Your task to perform on an android device: change keyboard looks Image 0: 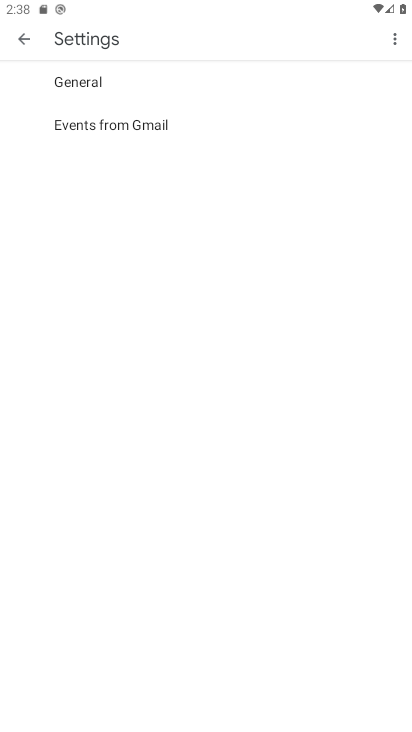
Step 0: press home button
Your task to perform on an android device: change keyboard looks Image 1: 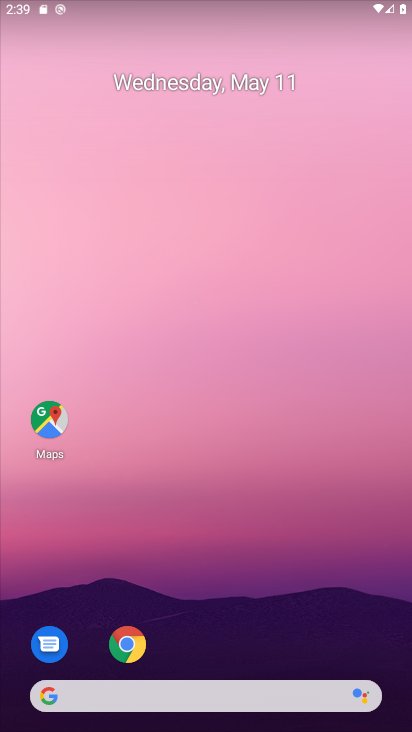
Step 1: drag from (214, 672) to (166, 3)
Your task to perform on an android device: change keyboard looks Image 2: 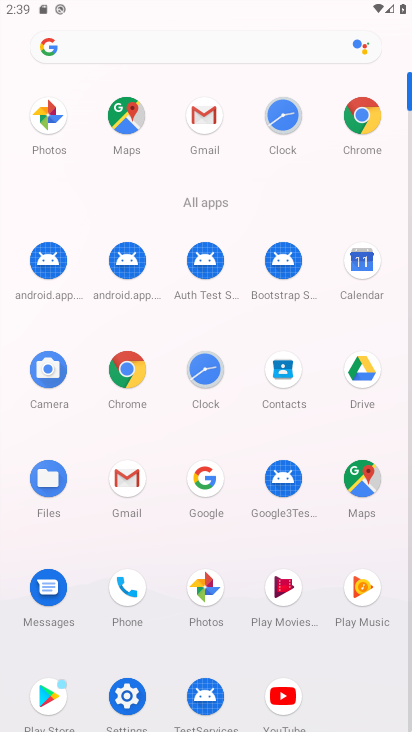
Step 2: click (132, 689)
Your task to perform on an android device: change keyboard looks Image 3: 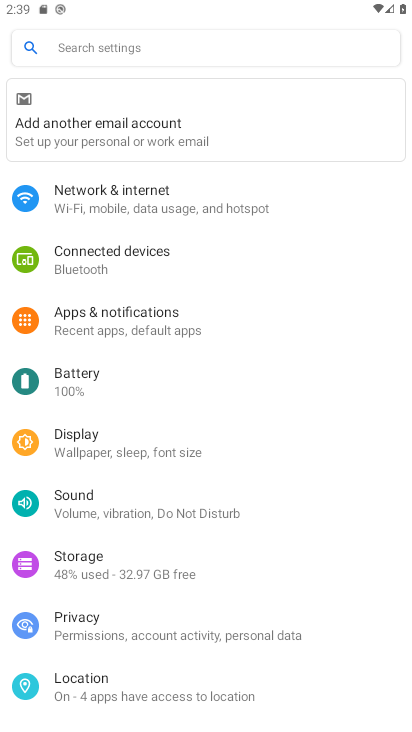
Step 3: click (93, 427)
Your task to perform on an android device: change keyboard looks Image 4: 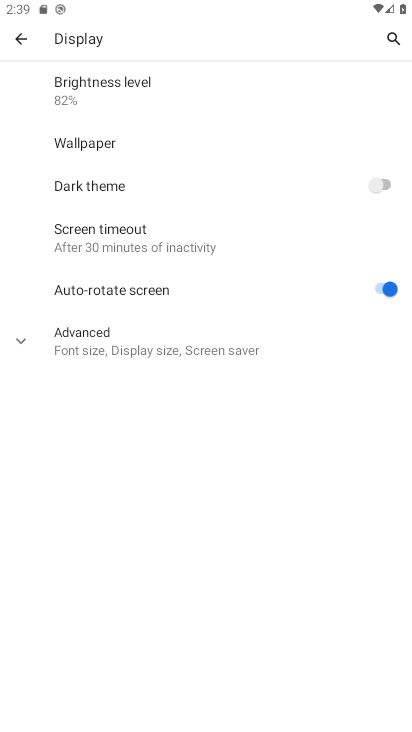
Step 4: click (31, 34)
Your task to perform on an android device: change keyboard looks Image 5: 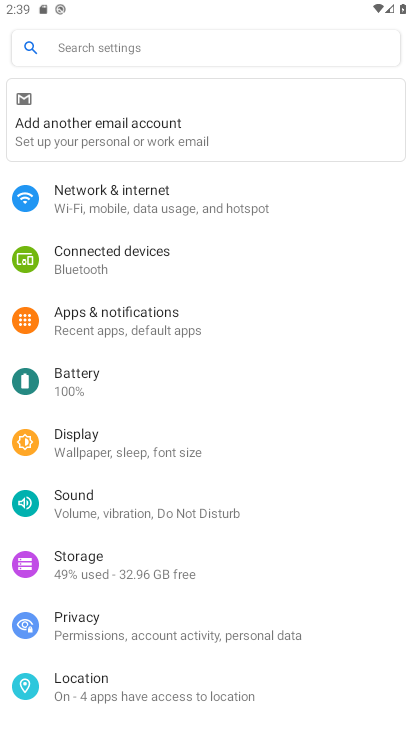
Step 5: drag from (185, 641) to (166, 19)
Your task to perform on an android device: change keyboard looks Image 6: 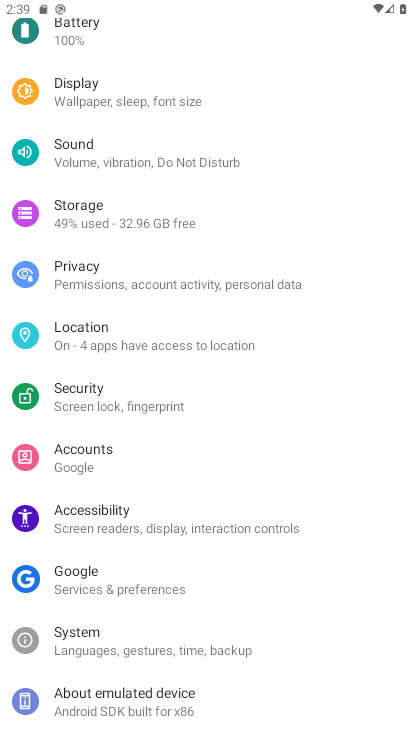
Step 6: click (96, 624)
Your task to perform on an android device: change keyboard looks Image 7: 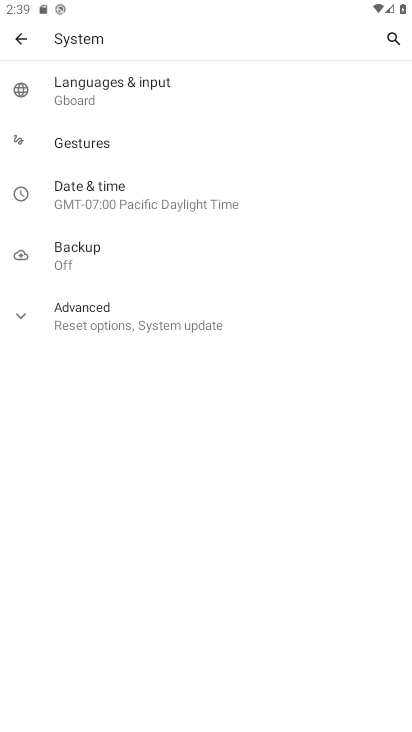
Step 7: click (78, 97)
Your task to perform on an android device: change keyboard looks Image 8: 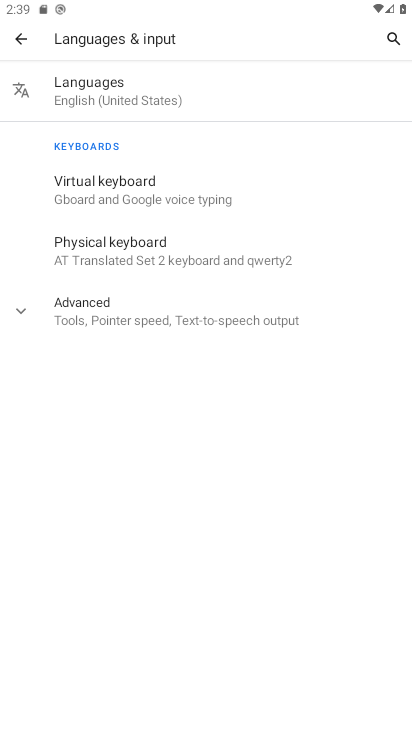
Step 8: click (117, 182)
Your task to perform on an android device: change keyboard looks Image 9: 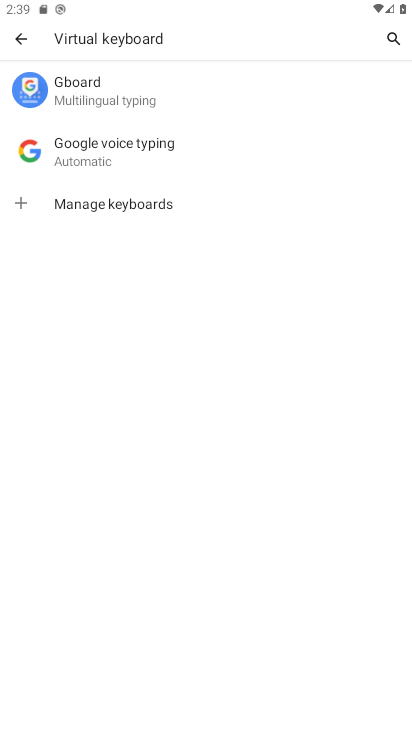
Step 9: click (93, 104)
Your task to perform on an android device: change keyboard looks Image 10: 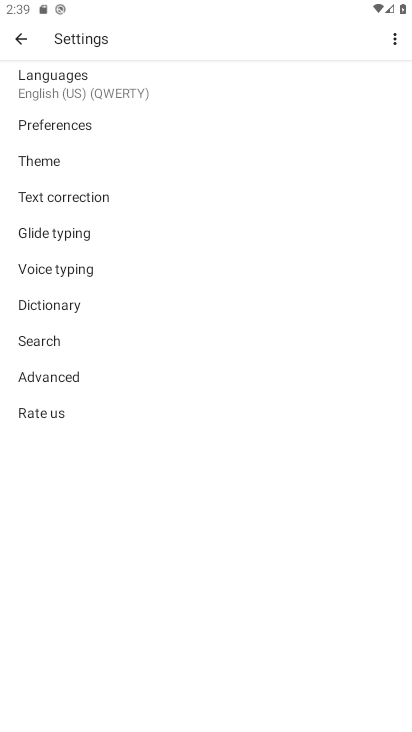
Step 10: click (33, 170)
Your task to perform on an android device: change keyboard looks Image 11: 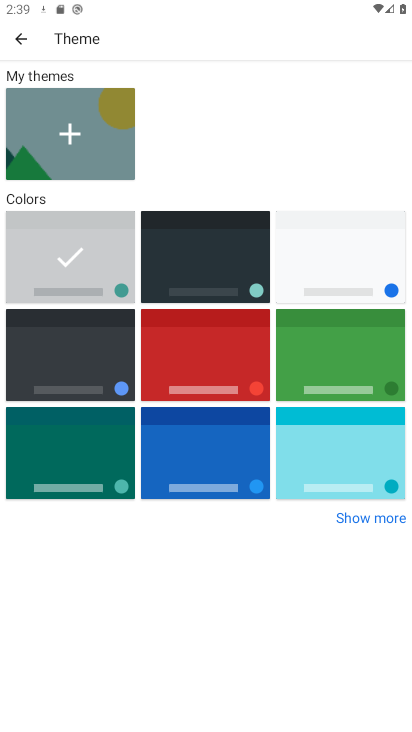
Step 11: click (181, 367)
Your task to perform on an android device: change keyboard looks Image 12: 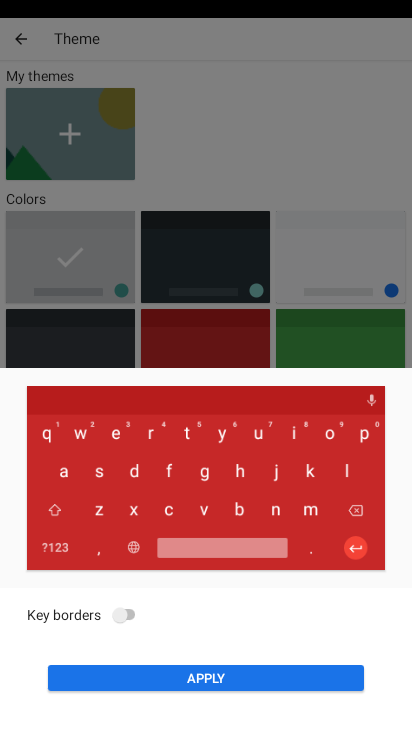
Step 12: task complete